Your task to perform on an android device: Search for seafood restaurants on Google Maps Image 0: 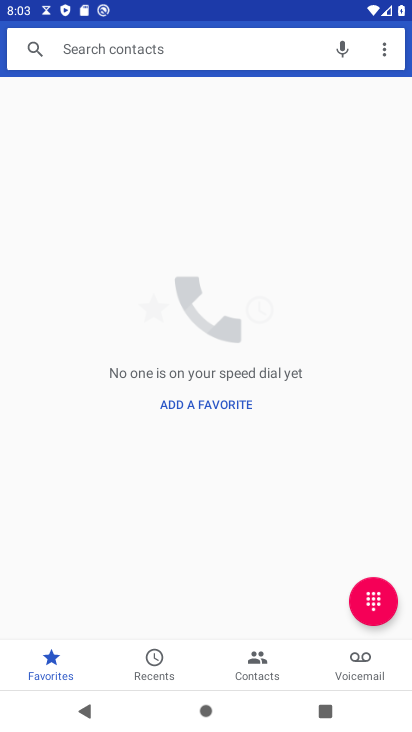
Step 0: press home button
Your task to perform on an android device: Search for seafood restaurants on Google Maps Image 1: 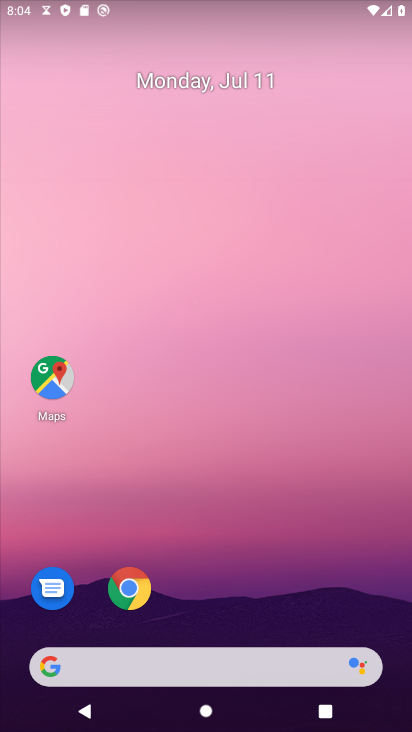
Step 1: drag from (283, 586) to (263, 91)
Your task to perform on an android device: Search for seafood restaurants on Google Maps Image 2: 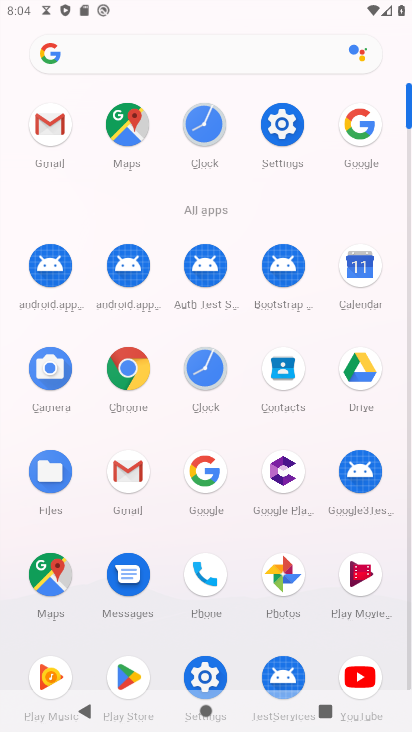
Step 2: click (362, 123)
Your task to perform on an android device: Search for seafood restaurants on Google Maps Image 3: 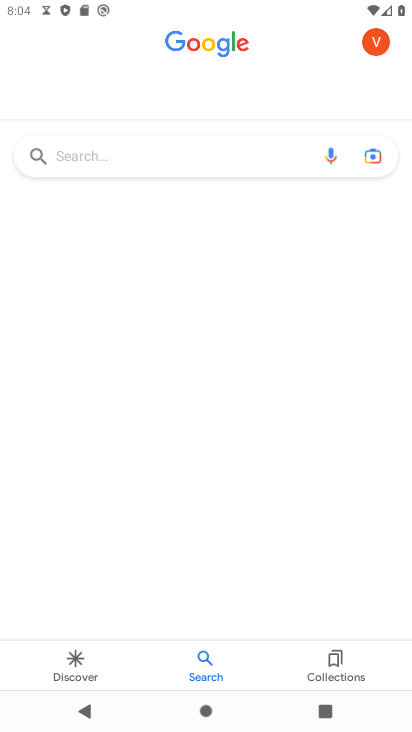
Step 3: type " seafood restaurants"
Your task to perform on an android device: Search for seafood restaurants on Google Maps Image 4: 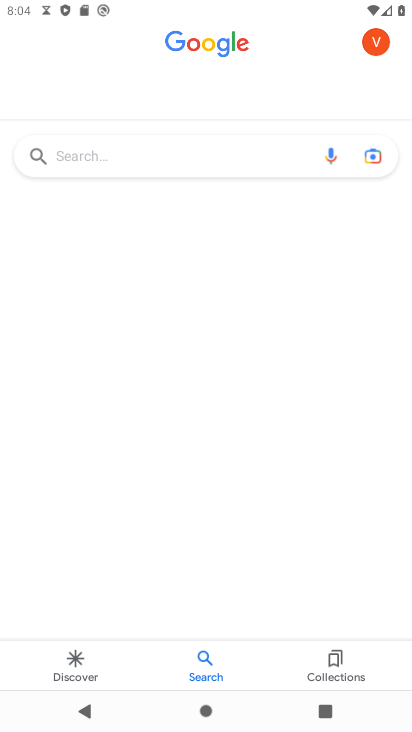
Step 4: click (65, 148)
Your task to perform on an android device: Search for seafood restaurants on Google Maps Image 5: 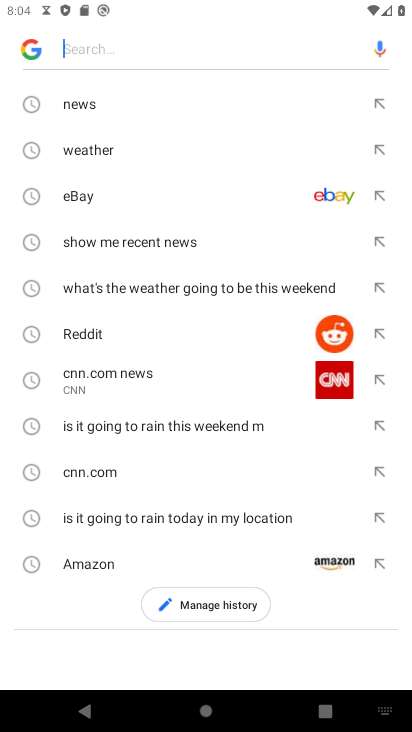
Step 5: type " seafood restaurants"
Your task to perform on an android device: Search for seafood restaurants on Google Maps Image 6: 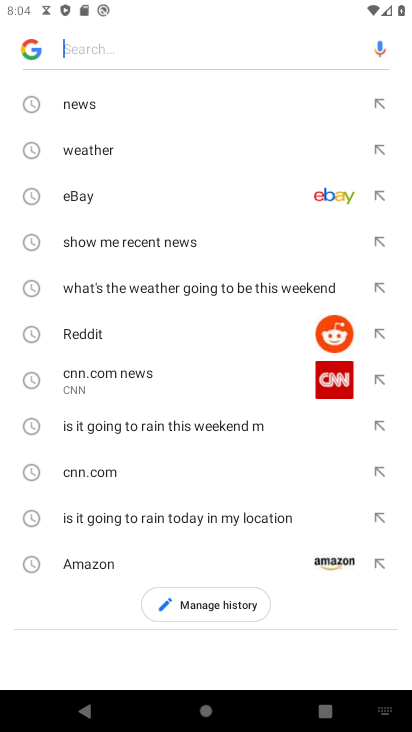
Step 6: click (87, 49)
Your task to perform on an android device: Search for seafood restaurants on Google Maps Image 7: 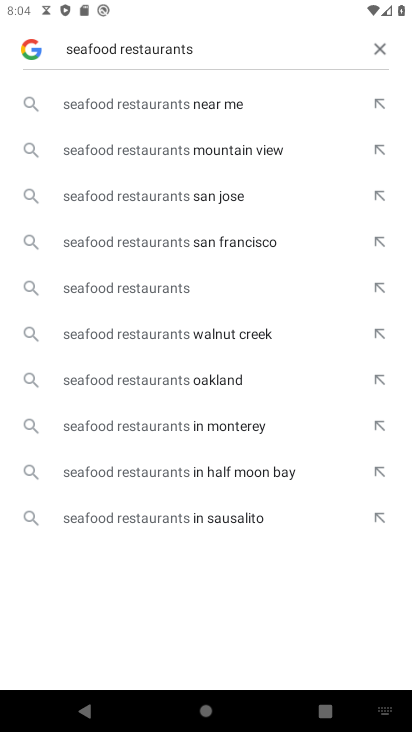
Step 7: press enter
Your task to perform on an android device: Search for seafood restaurants on Google Maps Image 8: 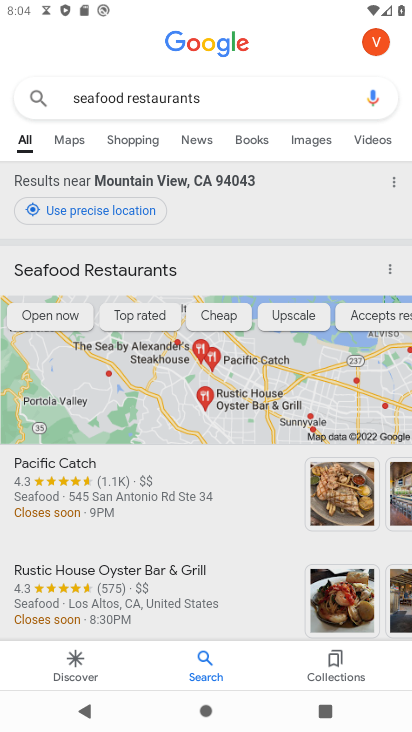
Step 8: task complete